Your task to perform on an android device: Go to Google Image 0: 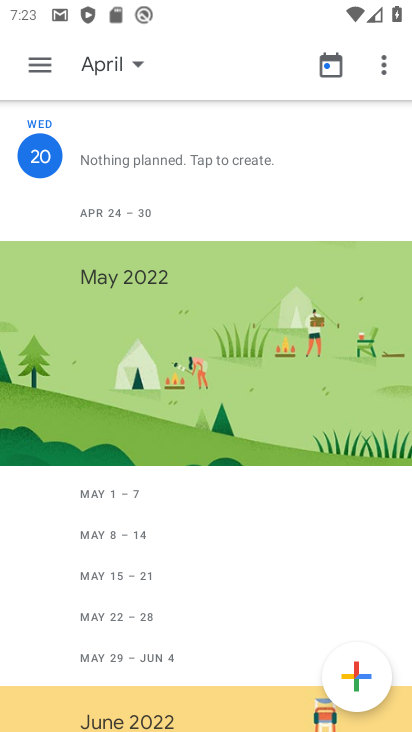
Step 0: press home button
Your task to perform on an android device: Go to Google Image 1: 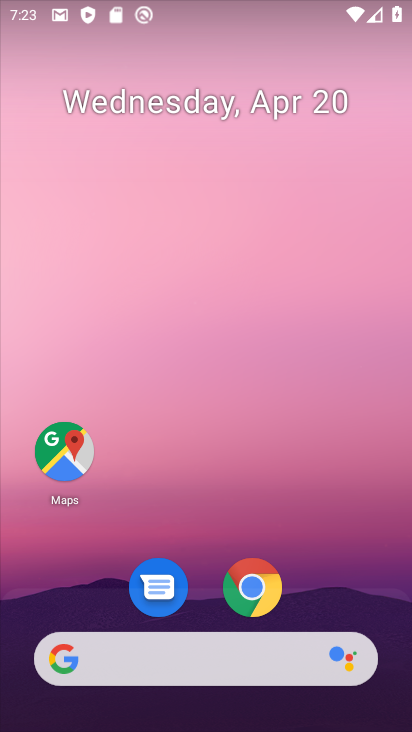
Step 1: drag from (230, 470) to (330, 44)
Your task to perform on an android device: Go to Google Image 2: 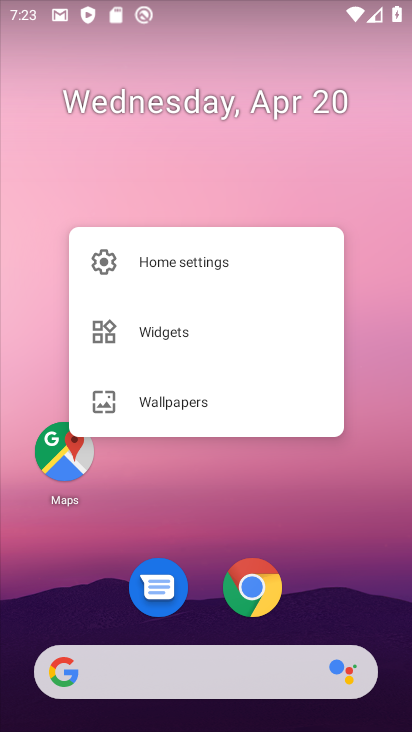
Step 2: drag from (180, 663) to (323, 137)
Your task to perform on an android device: Go to Google Image 3: 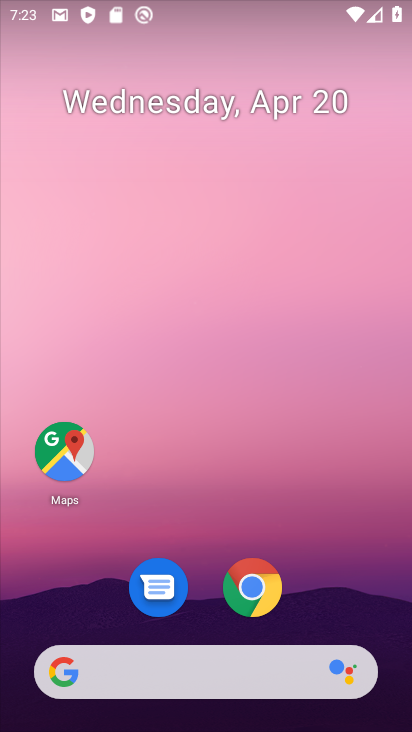
Step 3: drag from (180, 619) to (351, 87)
Your task to perform on an android device: Go to Google Image 4: 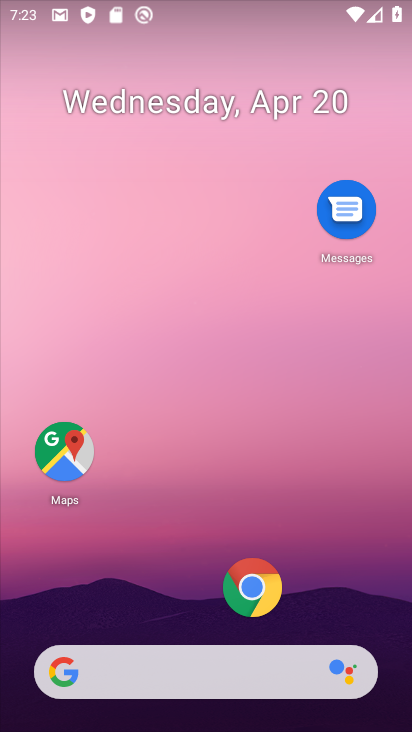
Step 4: drag from (133, 665) to (267, 131)
Your task to perform on an android device: Go to Google Image 5: 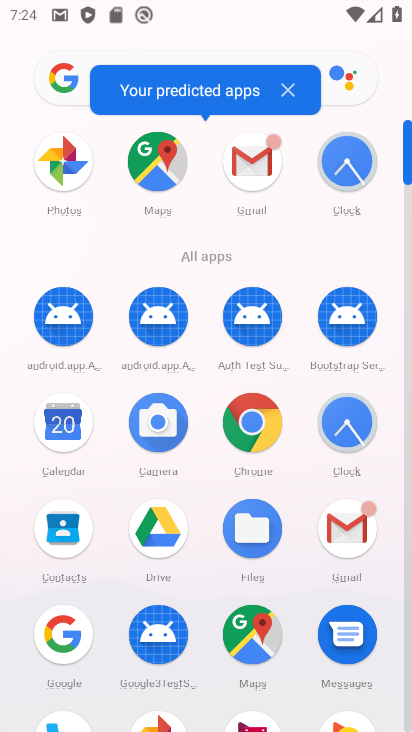
Step 5: click (65, 631)
Your task to perform on an android device: Go to Google Image 6: 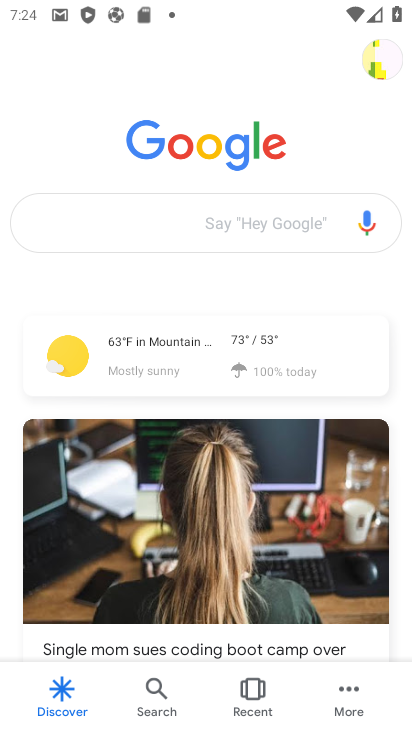
Step 6: task complete